Your task to perform on an android device: check the backup settings in the google photos Image 0: 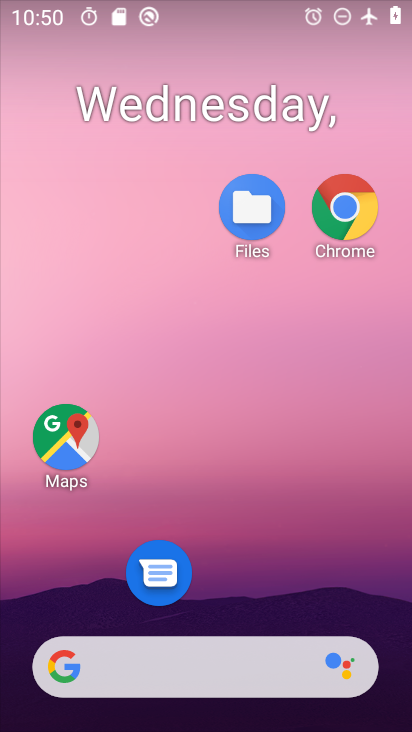
Step 0: drag from (221, 642) to (254, 143)
Your task to perform on an android device: check the backup settings in the google photos Image 1: 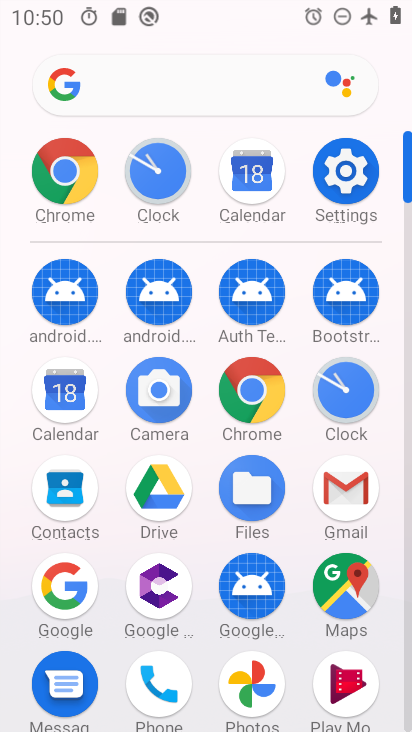
Step 1: click (262, 667)
Your task to perform on an android device: check the backup settings in the google photos Image 2: 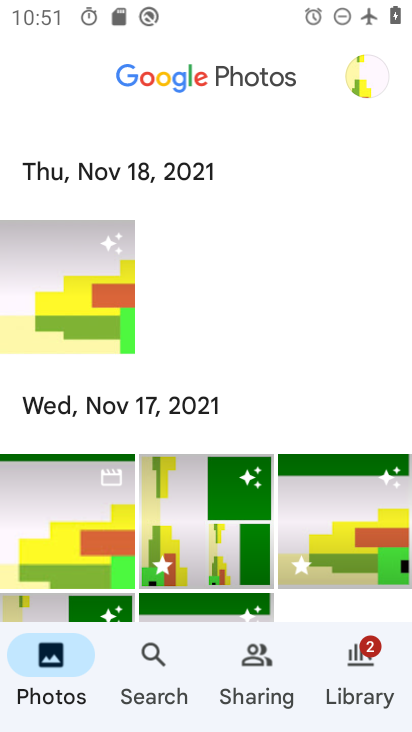
Step 2: click (372, 86)
Your task to perform on an android device: check the backup settings in the google photos Image 3: 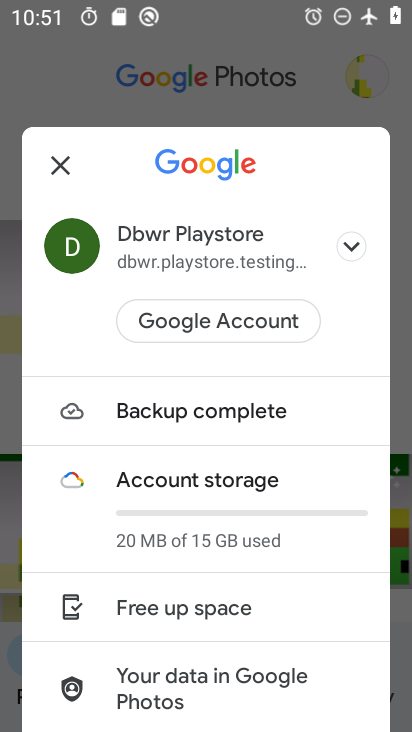
Step 3: drag from (171, 647) to (211, 253)
Your task to perform on an android device: check the backup settings in the google photos Image 4: 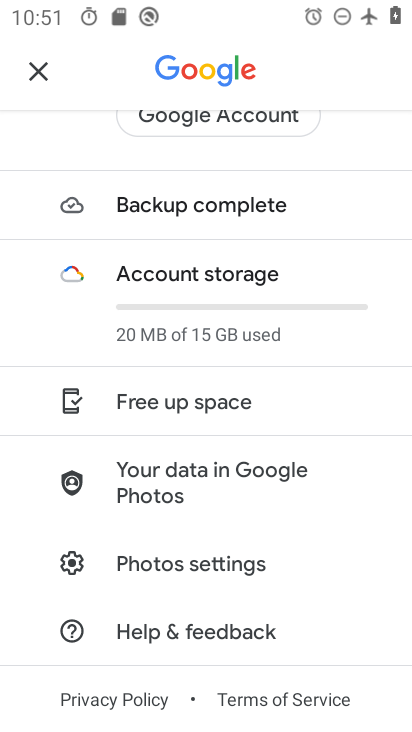
Step 4: click (218, 555)
Your task to perform on an android device: check the backup settings in the google photos Image 5: 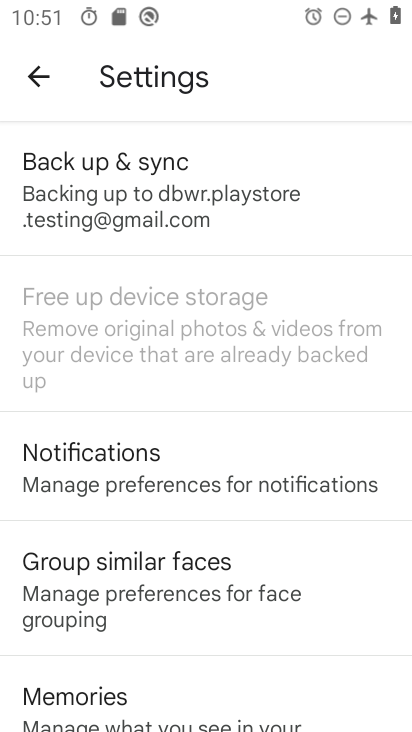
Step 5: click (130, 194)
Your task to perform on an android device: check the backup settings in the google photos Image 6: 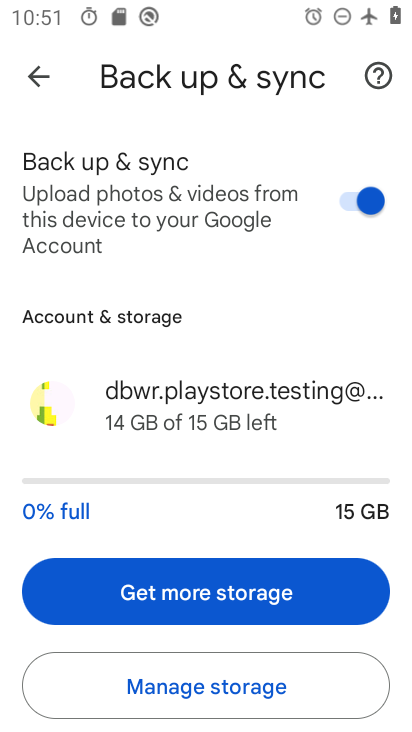
Step 6: task complete